Your task to perform on an android device: What's the news in Uruguay? Image 0: 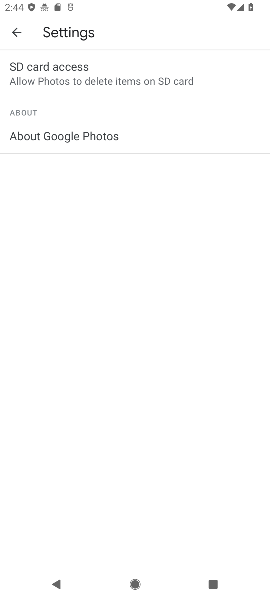
Step 0: press home button
Your task to perform on an android device: What's the news in Uruguay? Image 1: 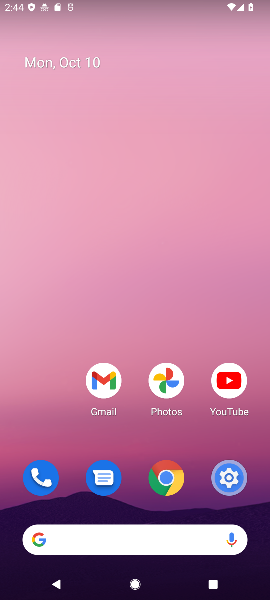
Step 1: click (172, 491)
Your task to perform on an android device: What's the news in Uruguay? Image 2: 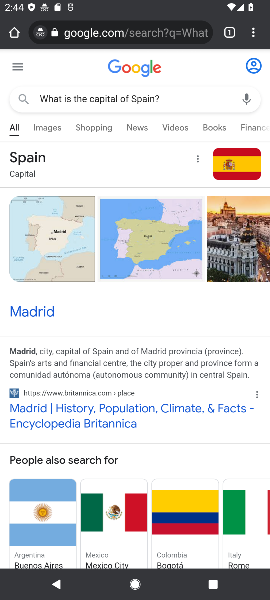
Step 2: click (125, 41)
Your task to perform on an android device: What's the news in Uruguay? Image 3: 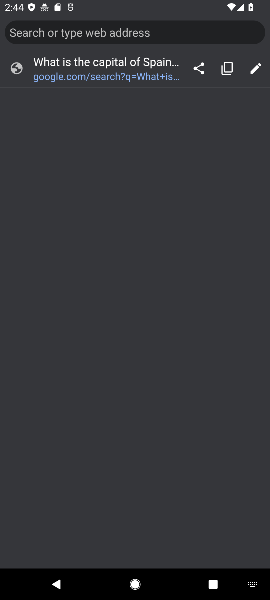
Step 3: type "What's the news in Uruguay?"
Your task to perform on an android device: What's the news in Uruguay? Image 4: 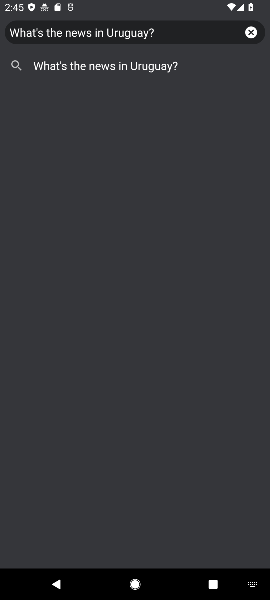
Step 4: click (77, 64)
Your task to perform on an android device: What's the news in Uruguay? Image 5: 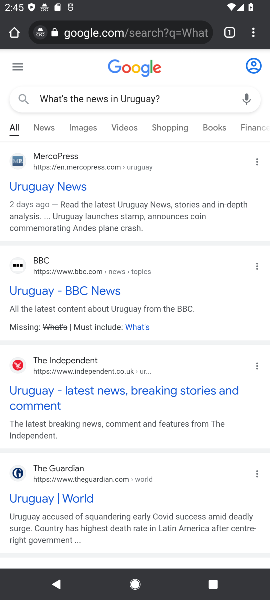
Step 5: click (50, 180)
Your task to perform on an android device: What's the news in Uruguay? Image 6: 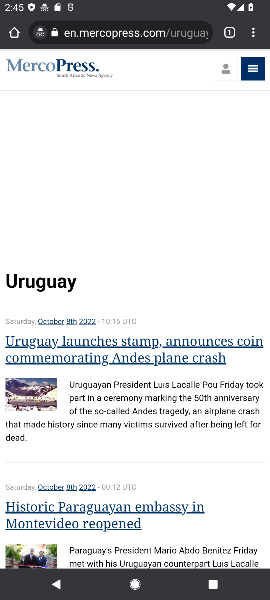
Step 6: task complete